Your task to perform on an android device: Search for Mexican restaurants on Maps Image 0: 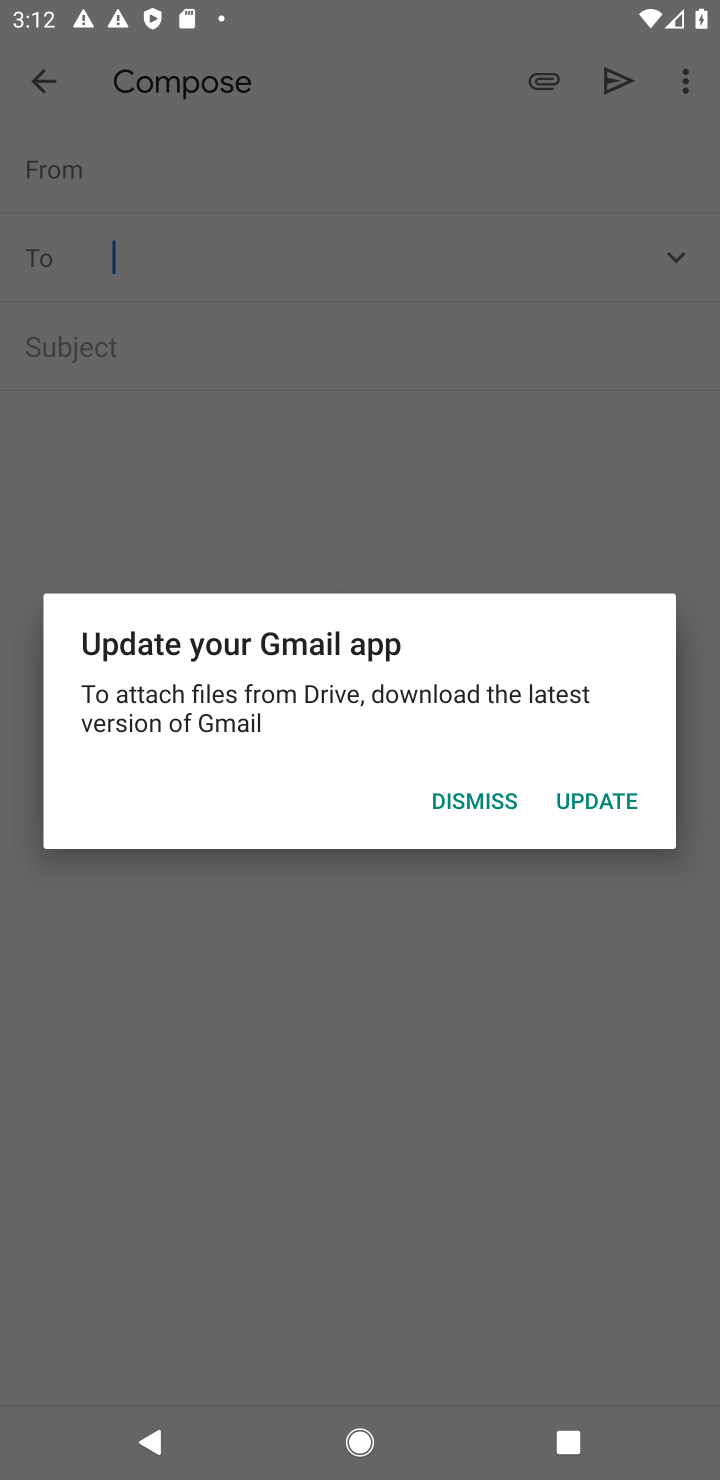
Step 0: press home button
Your task to perform on an android device: Search for Mexican restaurants on Maps Image 1: 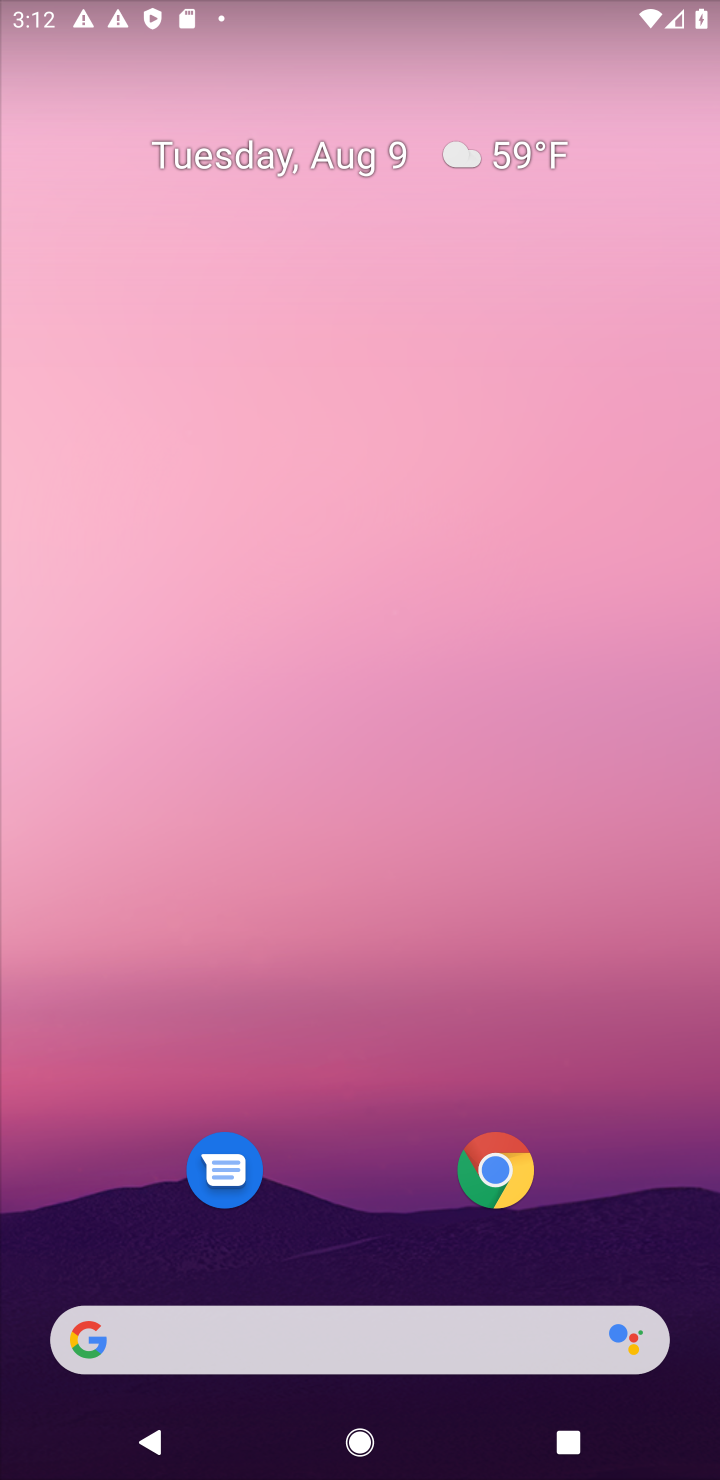
Step 1: drag from (351, 1238) to (378, 224)
Your task to perform on an android device: Search for Mexican restaurants on Maps Image 2: 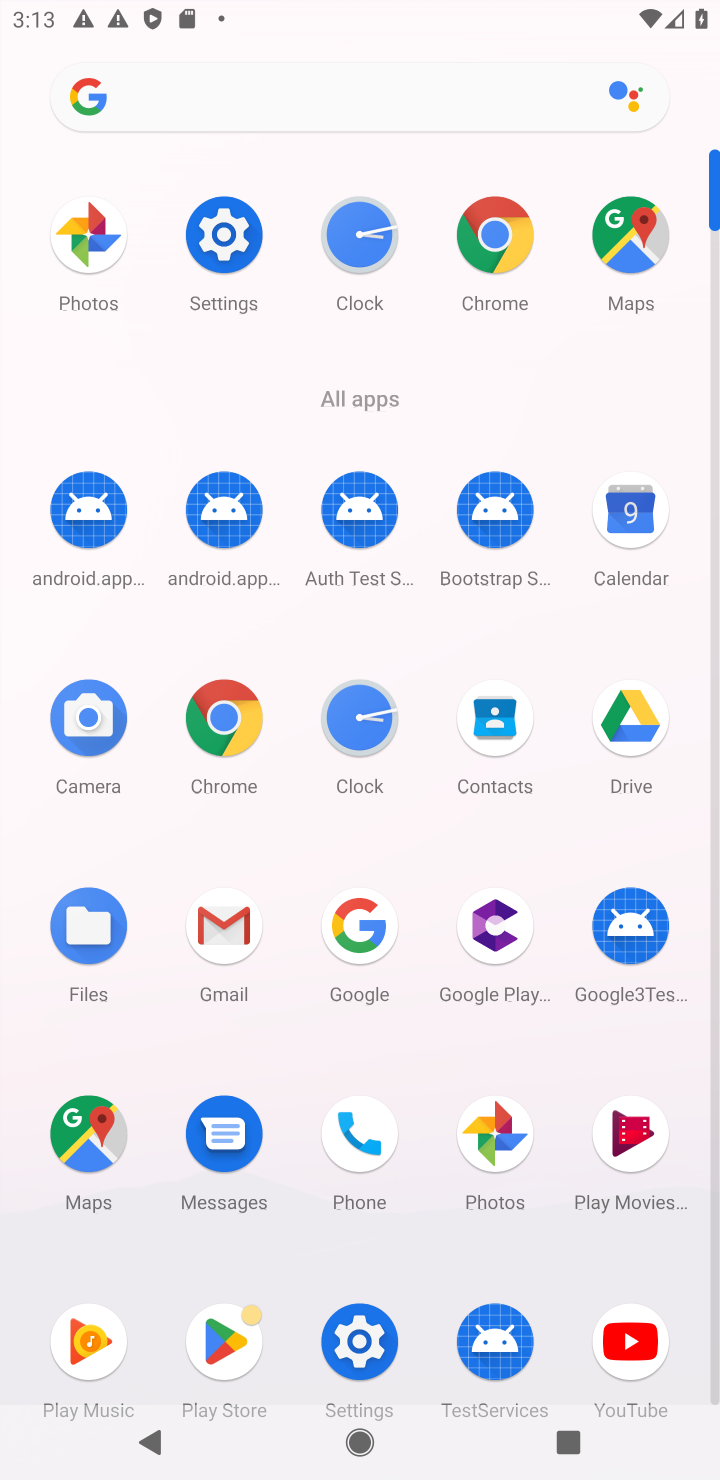
Step 2: click (633, 230)
Your task to perform on an android device: Search for Mexican restaurants on Maps Image 3: 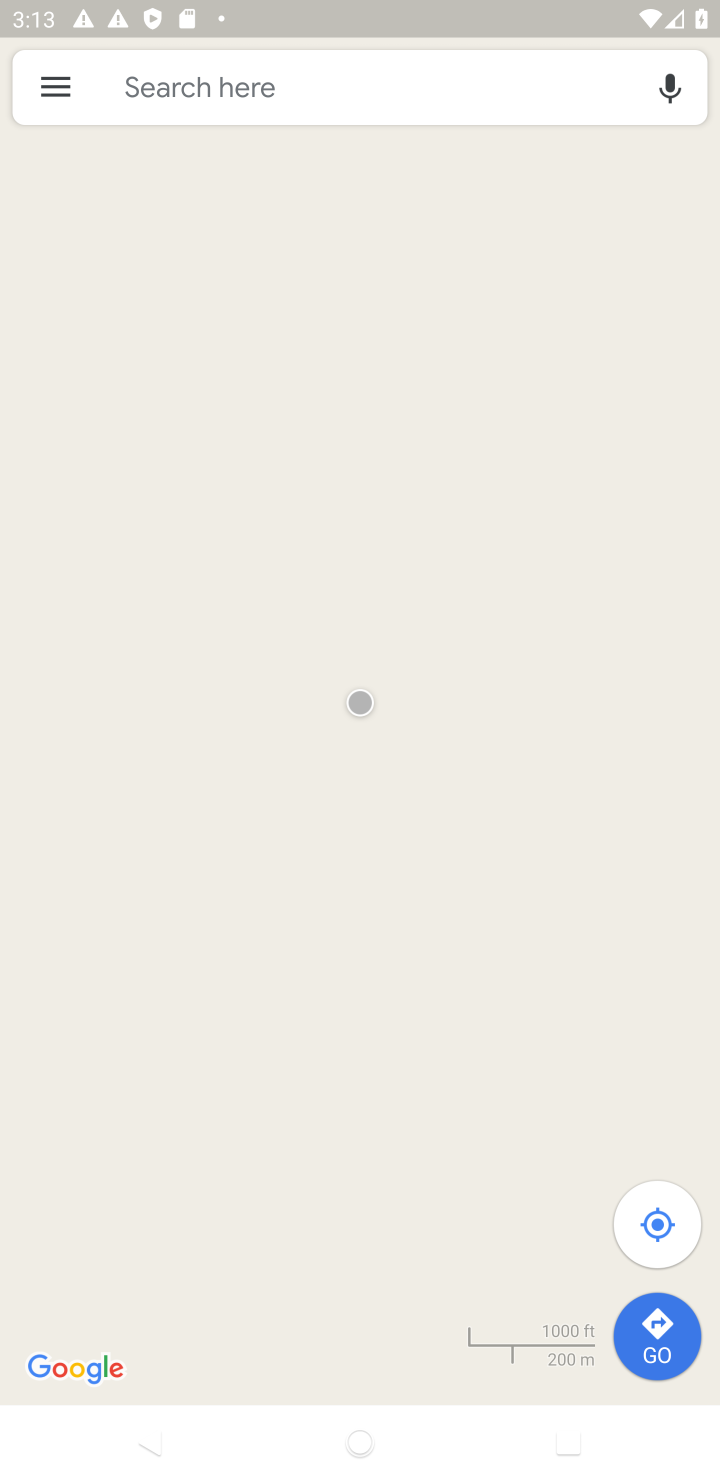
Step 3: type "Mexican restaurants"
Your task to perform on an android device: Search for Mexican restaurants on Maps Image 4: 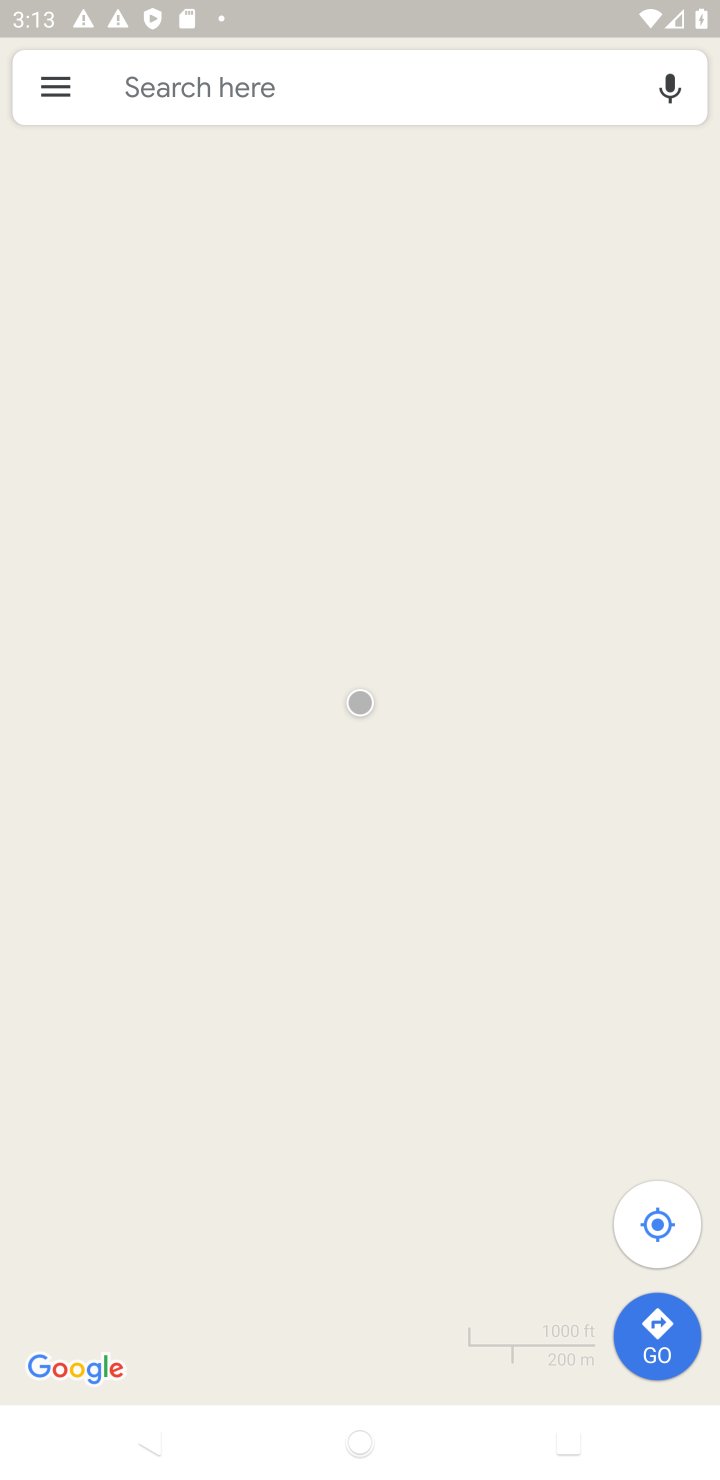
Step 4: click (179, 74)
Your task to perform on an android device: Search for Mexican restaurants on Maps Image 5: 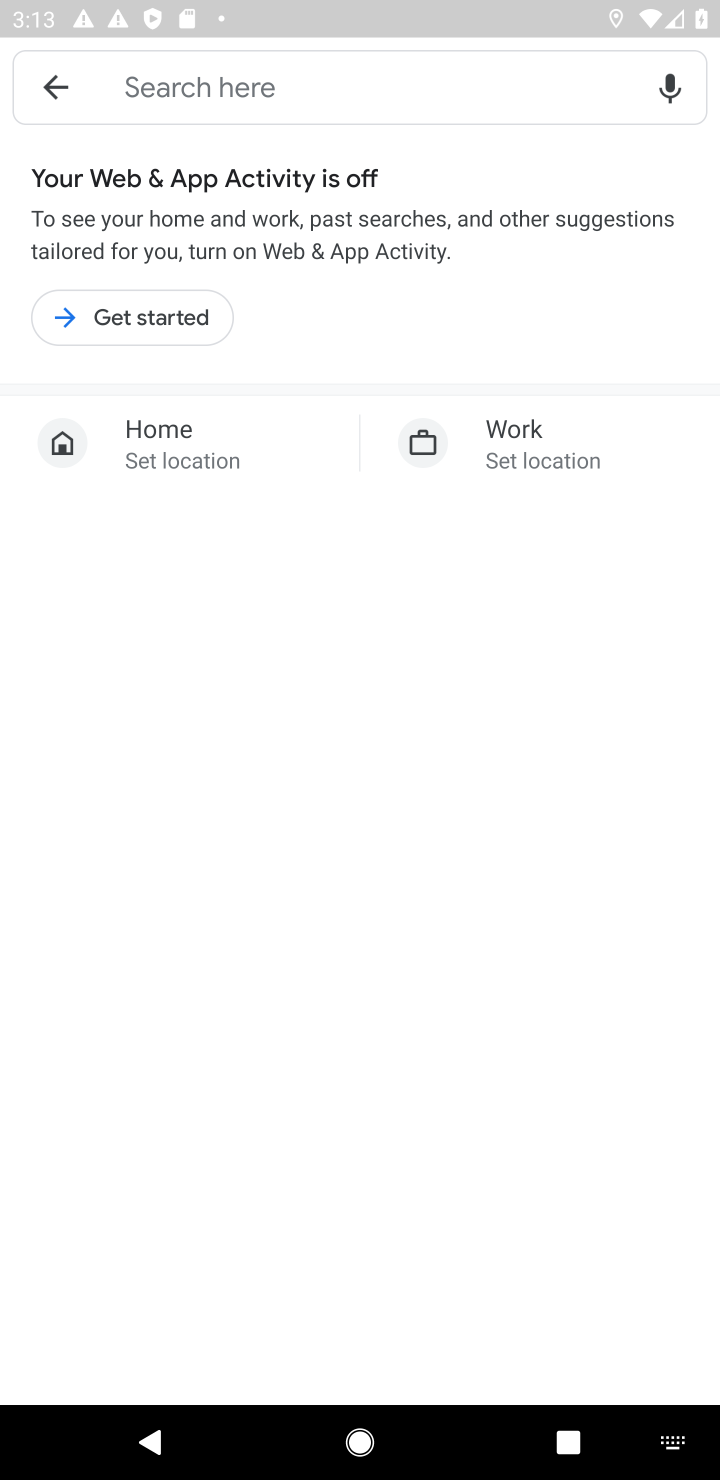
Step 5: click (303, 89)
Your task to perform on an android device: Search for Mexican restaurants on Maps Image 6: 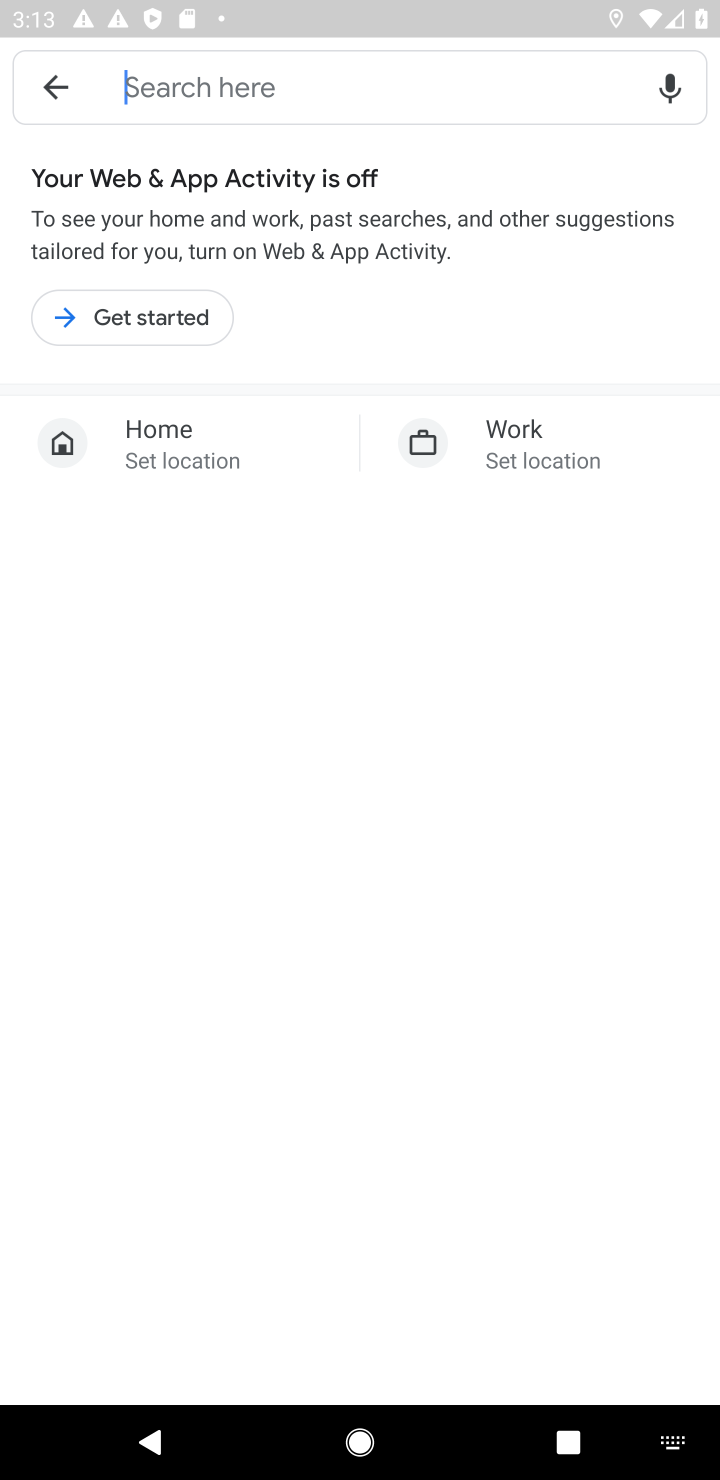
Step 6: type "Mexican restaurants"
Your task to perform on an android device: Search for Mexican restaurants on Maps Image 7: 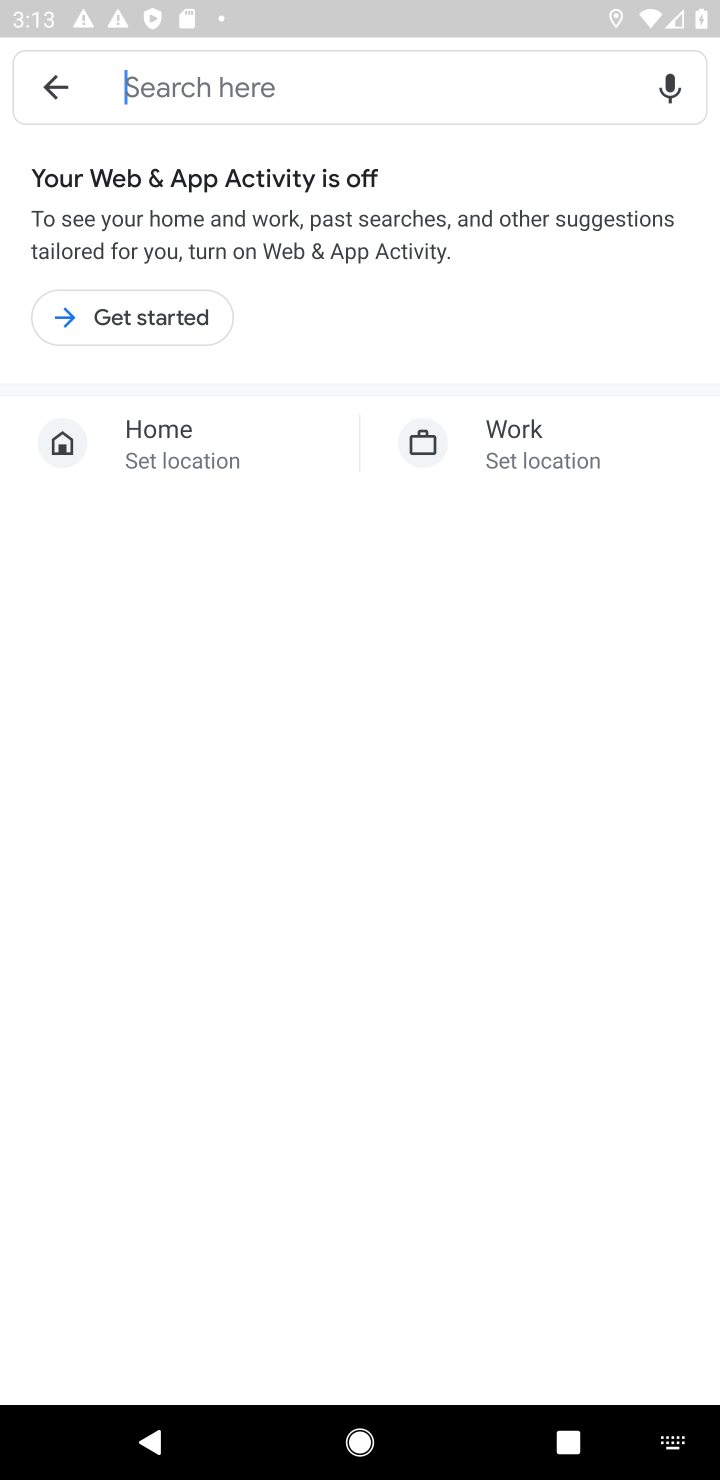
Step 7: click (175, 75)
Your task to perform on an android device: Search for Mexican restaurants on Maps Image 8: 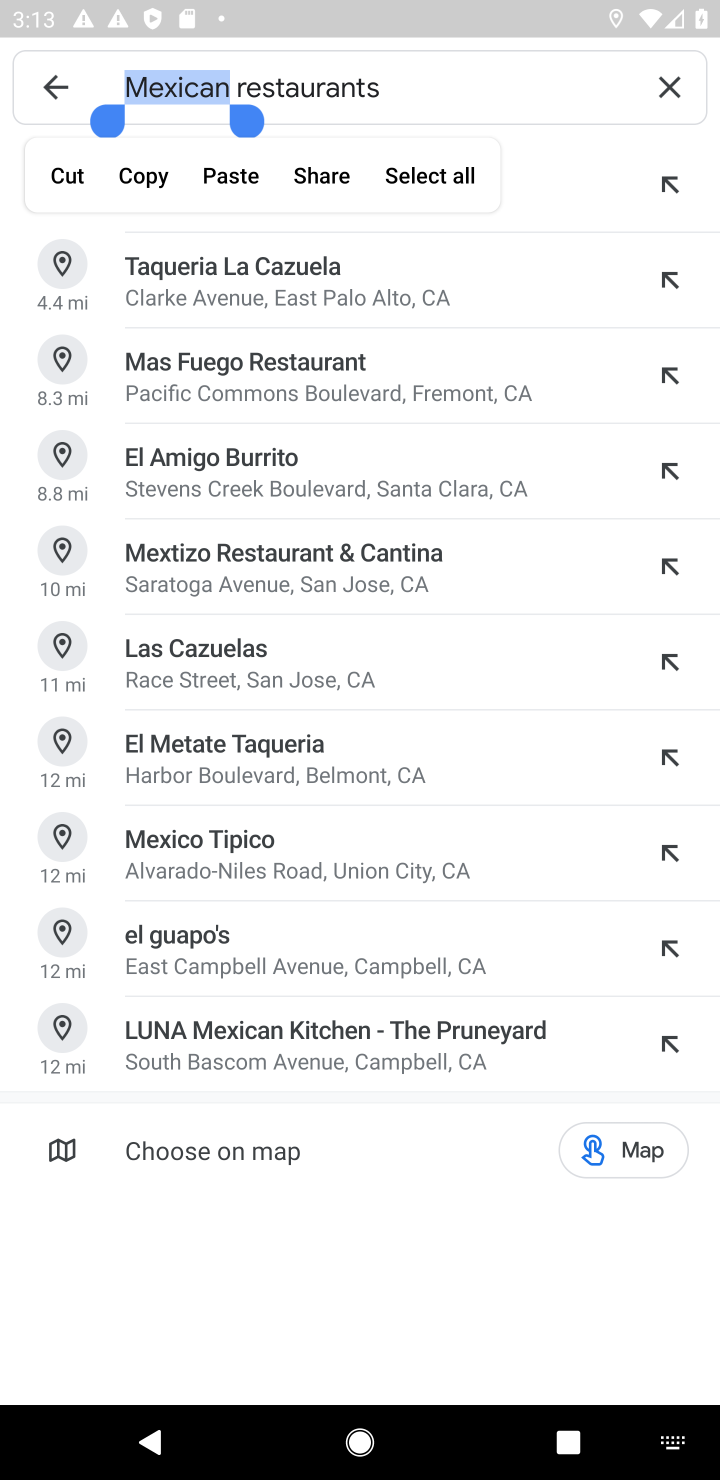
Step 8: press enter
Your task to perform on an android device: Search for Mexican restaurants on Maps Image 9: 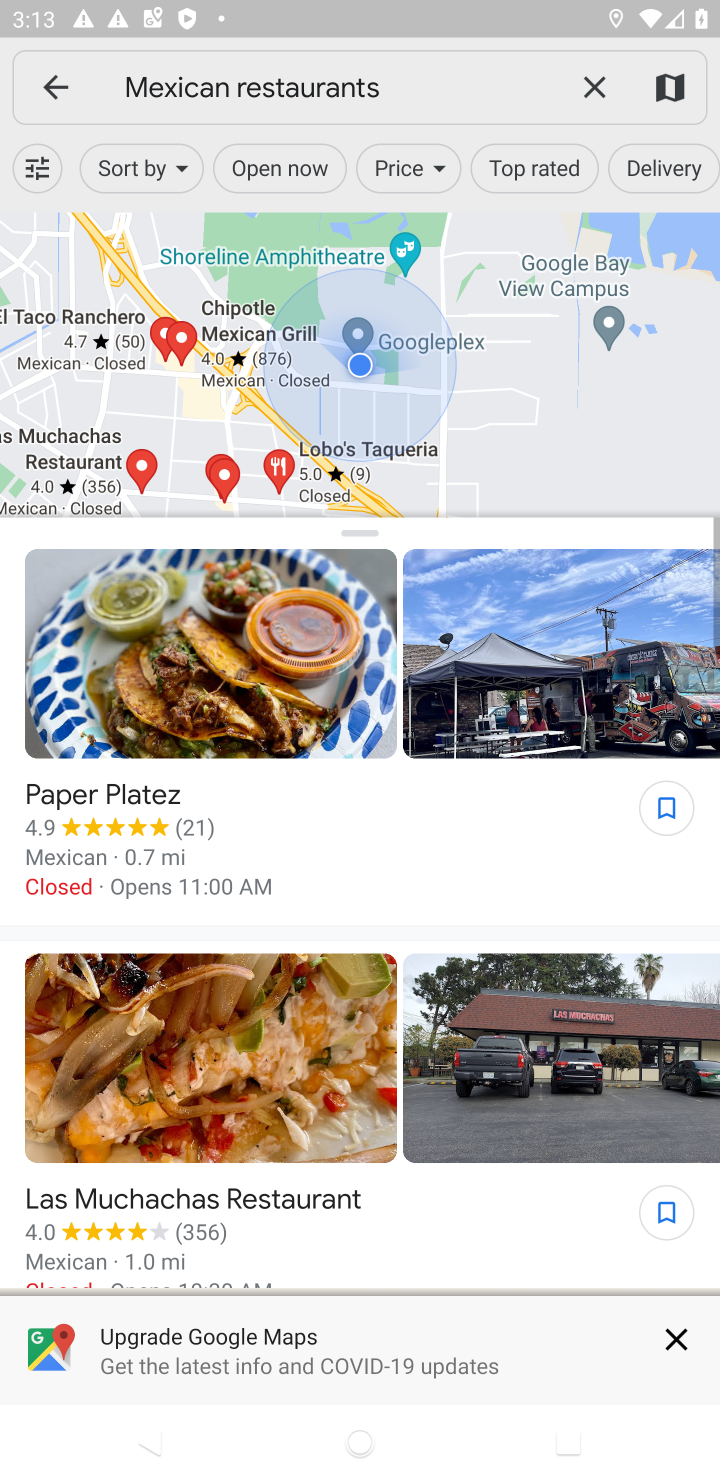
Step 9: task complete